Your task to perform on an android device: add a contact Image 0: 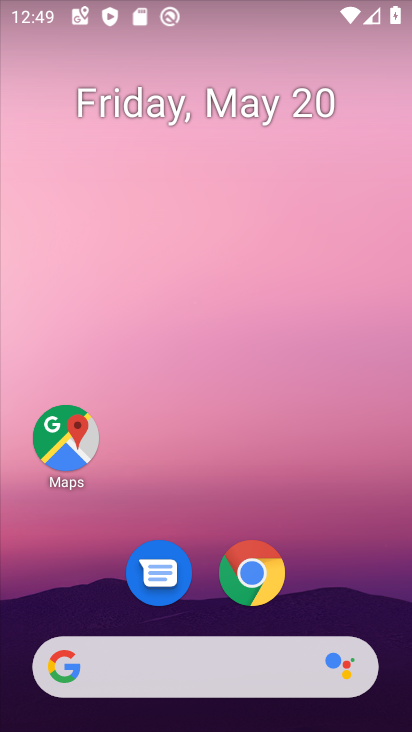
Step 0: drag from (220, 720) to (211, 39)
Your task to perform on an android device: add a contact Image 1: 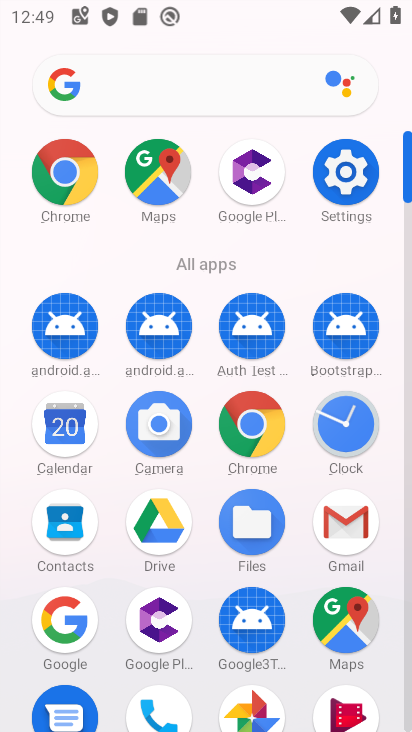
Step 1: click (70, 515)
Your task to perform on an android device: add a contact Image 2: 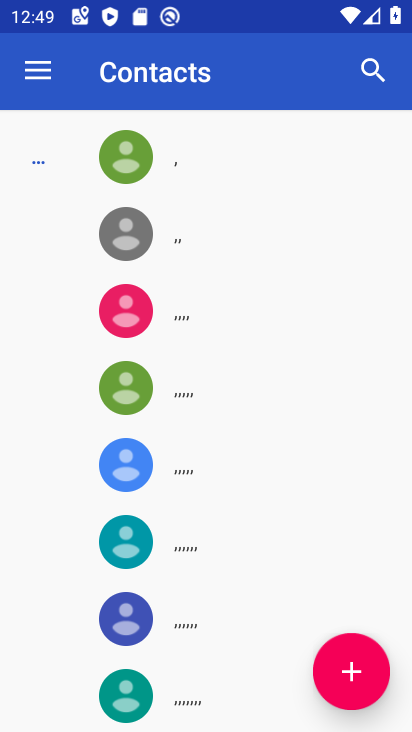
Step 2: click (353, 672)
Your task to perform on an android device: add a contact Image 3: 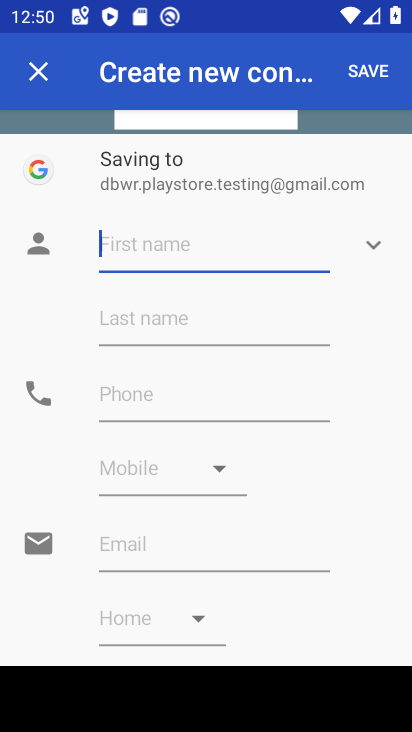
Step 3: type "kgf55"
Your task to perform on an android device: add a contact Image 4: 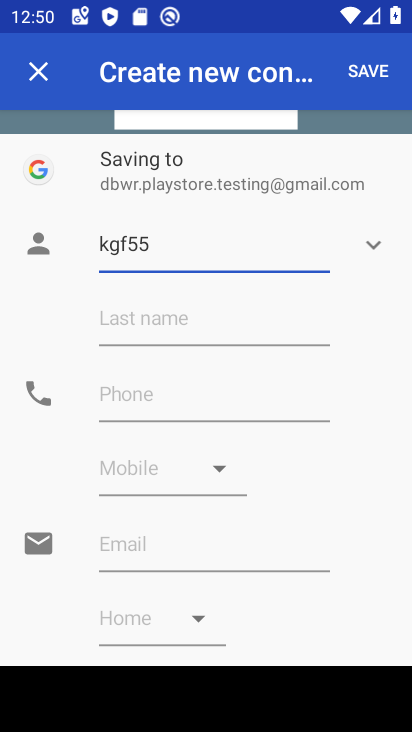
Step 4: click (130, 396)
Your task to perform on an android device: add a contact Image 5: 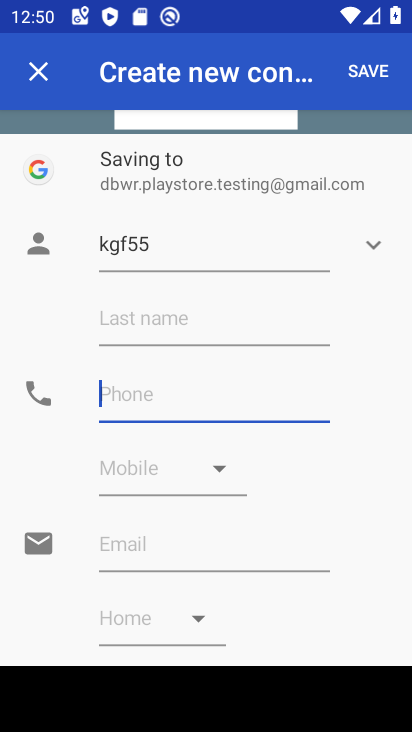
Step 5: type "888878765"
Your task to perform on an android device: add a contact Image 6: 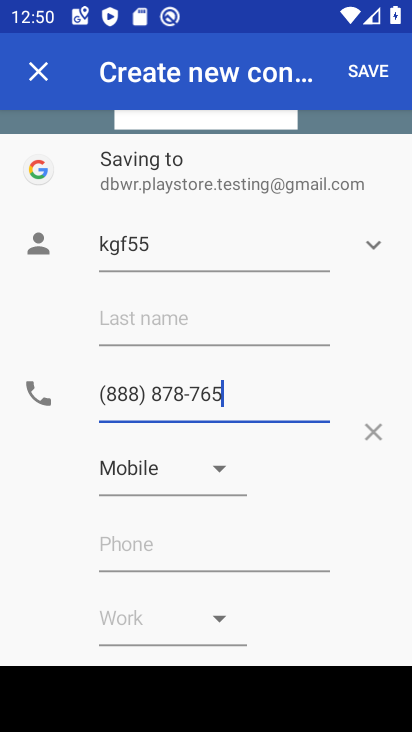
Step 6: click (356, 68)
Your task to perform on an android device: add a contact Image 7: 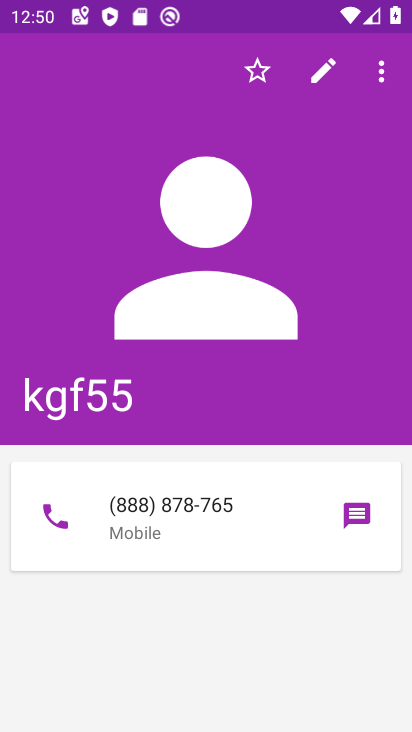
Step 7: task complete